Your task to perform on an android device: Search for hotels in Sydney Image 0: 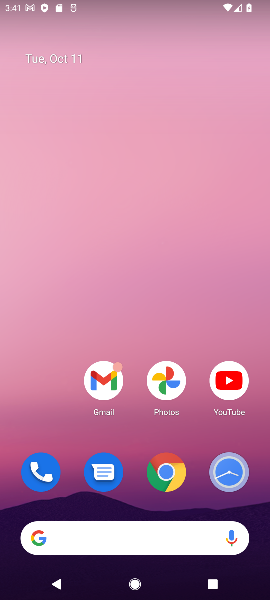
Step 0: click (136, 533)
Your task to perform on an android device: Search for hotels in Sydney Image 1: 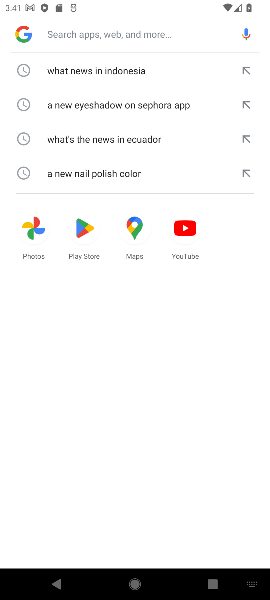
Step 1: type "hotels in Sydney"
Your task to perform on an android device: Search for hotels in Sydney Image 2: 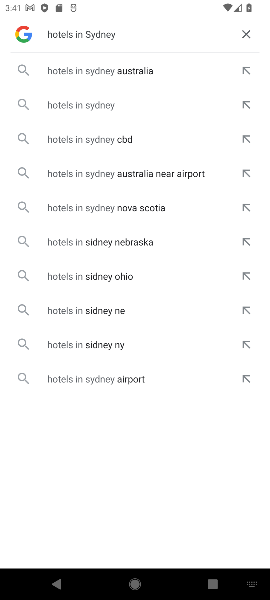
Step 2: click (106, 107)
Your task to perform on an android device: Search for hotels in Sydney Image 3: 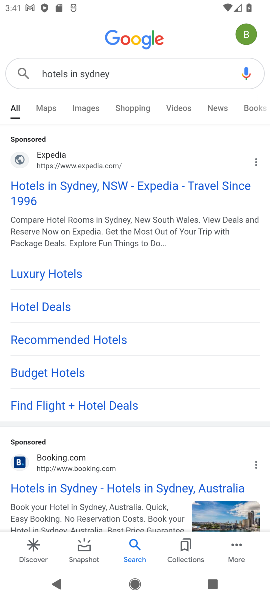
Step 3: task complete